Your task to perform on an android device: Empty the shopping cart on bestbuy. Add macbook pro to the cart on bestbuy, then select checkout. Image 0: 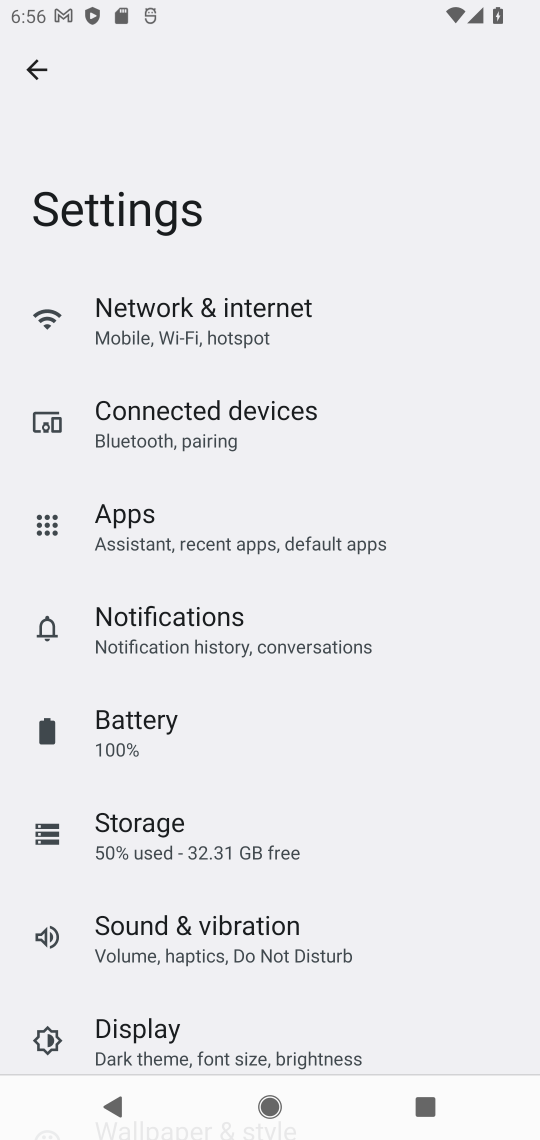
Step 0: press home button
Your task to perform on an android device: Empty the shopping cart on bestbuy. Add macbook pro to the cart on bestbuy, then select checkout. Image 1: 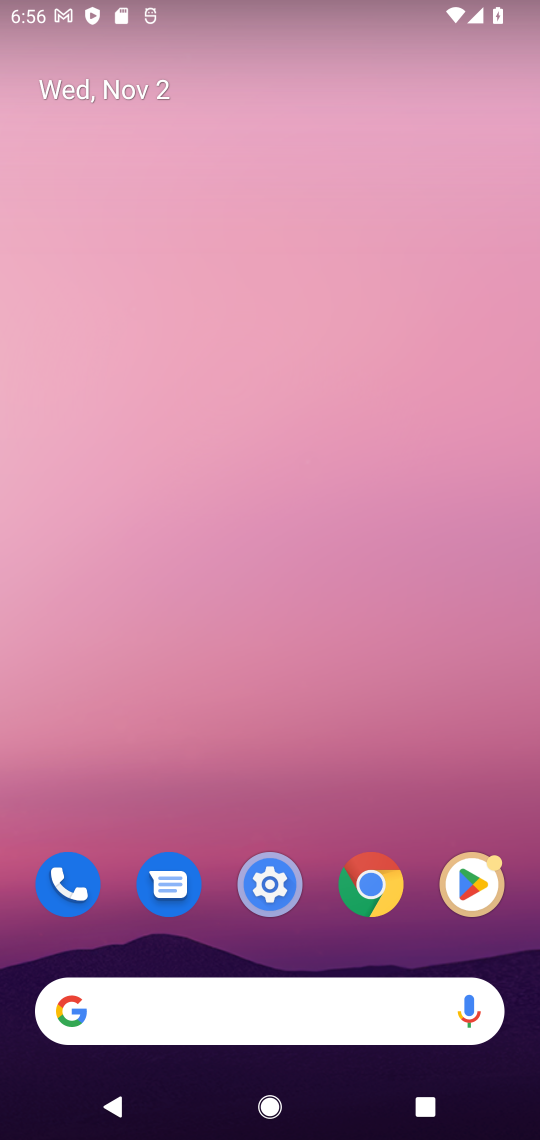
Step 1: click (318, 1007)
Your task to perform on an android device: Empty the shopping cart on bestbuy. Add macbook pro to the cart on bestbuy, then select checkout. Image 2: 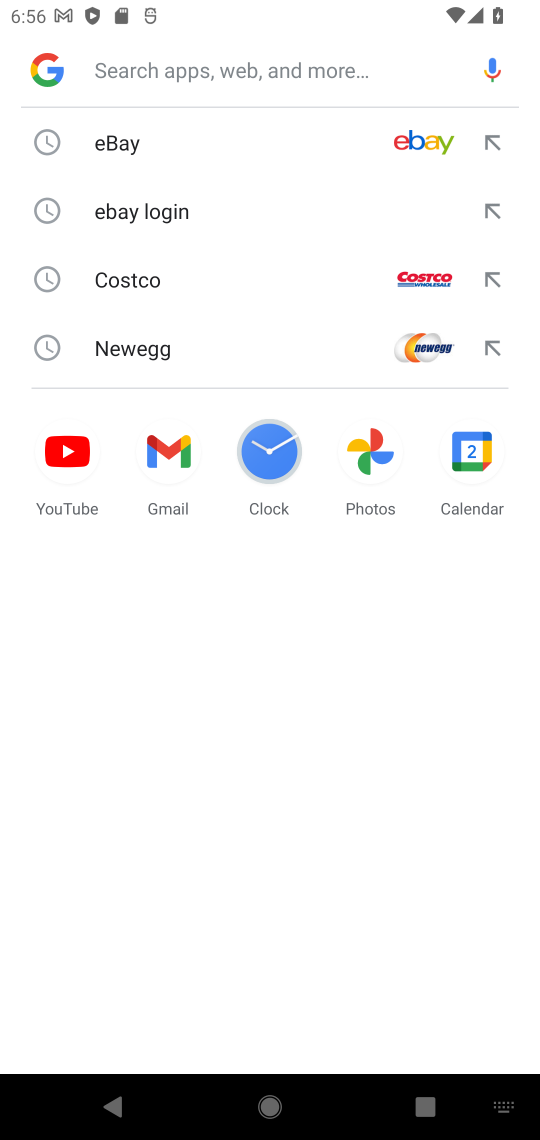
Step 2: type "bestbuy"
Your task to perform on an android device: Empty the shopping cart on bestbuy. Add macbook pro to the cart on bestbuy, then select checkout. Image 3: 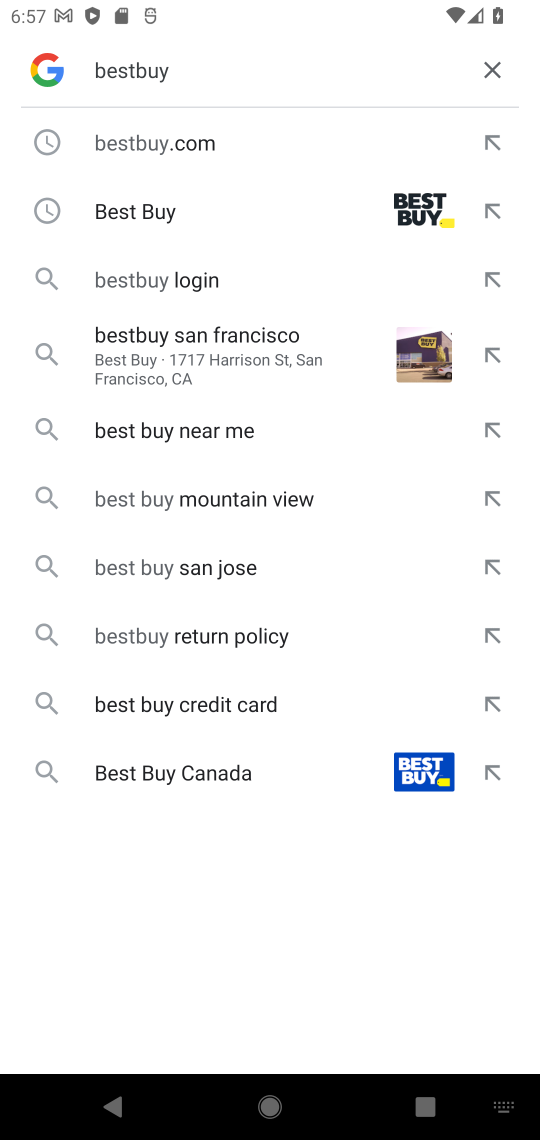
Step 3: click (412, 231)
Your task to perform on an android device: Empty the shopping cart on bestbuy. Add macbook pro to the cart on bestbuy, then select checkout. Image 4: 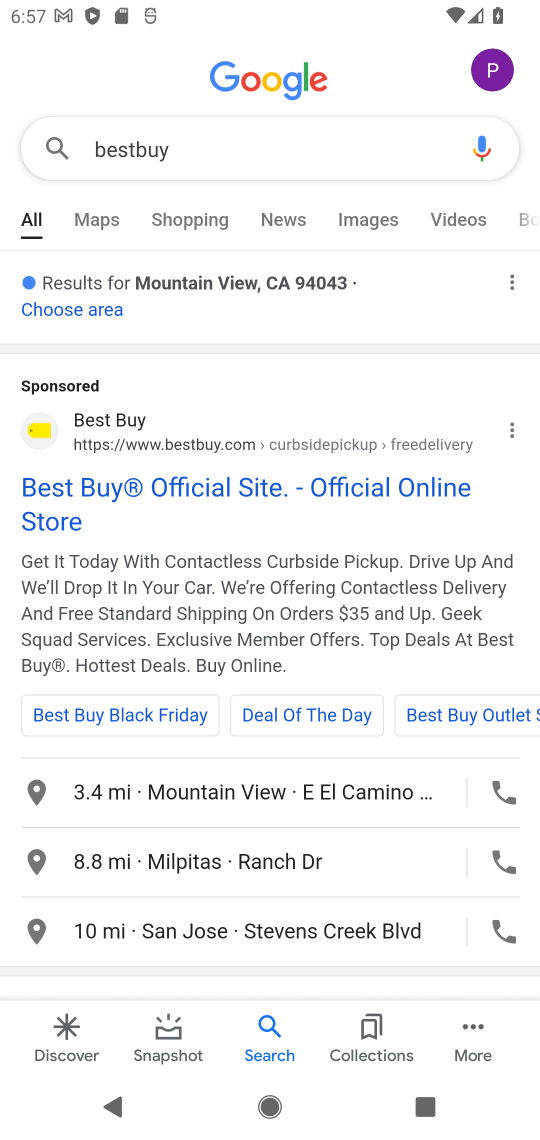
Step 4: click (245, 493)
Your task to perform on an android device: Empty the shopping cart on bestbuy. Add macbook pro to the cart on bestbuy, then select checkout. Image 5: 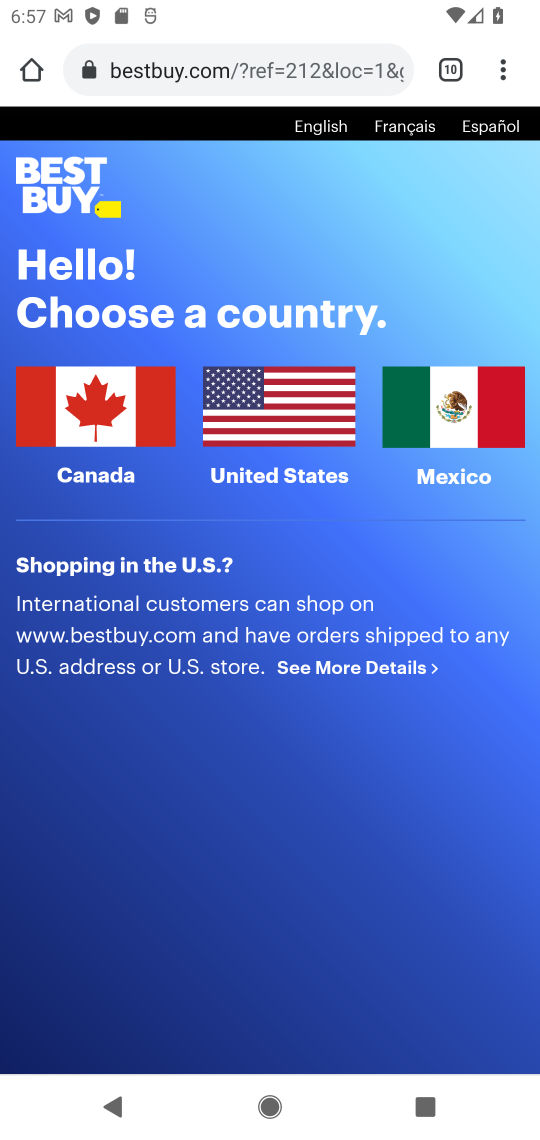
Step 5: click (264, 438)
Your task to perform on an android device: Empty the shopping cart on bestbuy. Add macbook pro to the cart on bestbuy, then select checkout. Image 6: 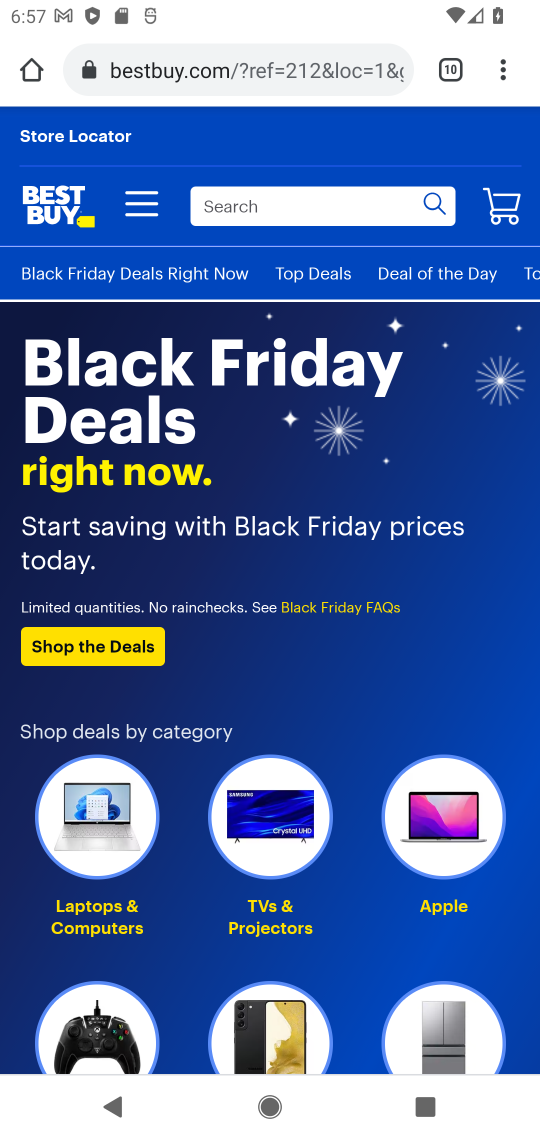
Step 6: click (287, 207)
Your task to perform on an android device: Empty the shopping cart on bestbuy. Add macbook pro to the cart on bestbuy, then select checkout. Image 7: 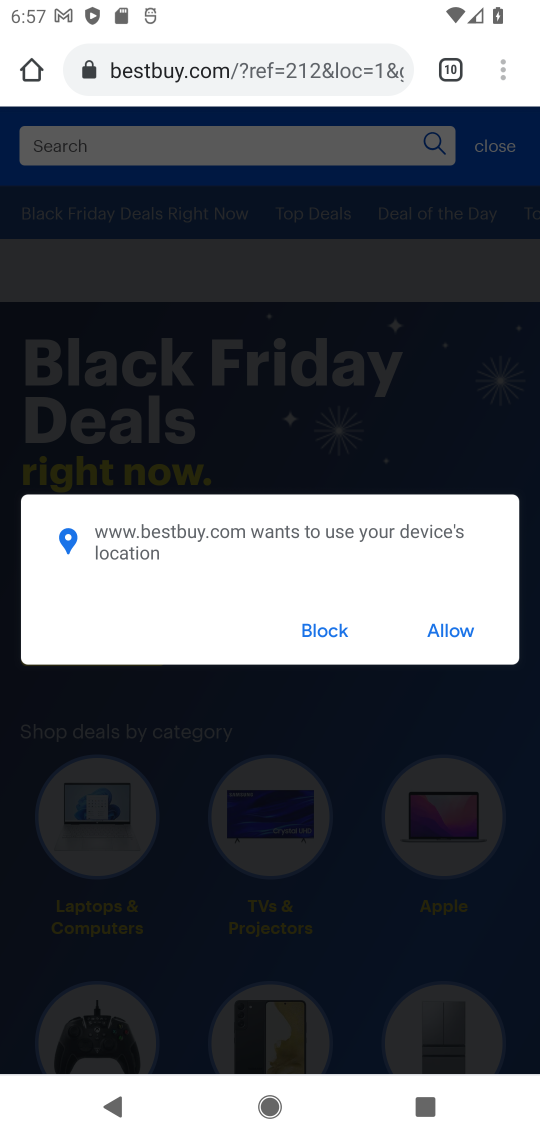
Step 7: click (358, 652)
Your task to perform on an android device: Empty the shopping cart on bestbuy. Add macbook pro to the cart on bestbuy, then select checkout. Image 8: 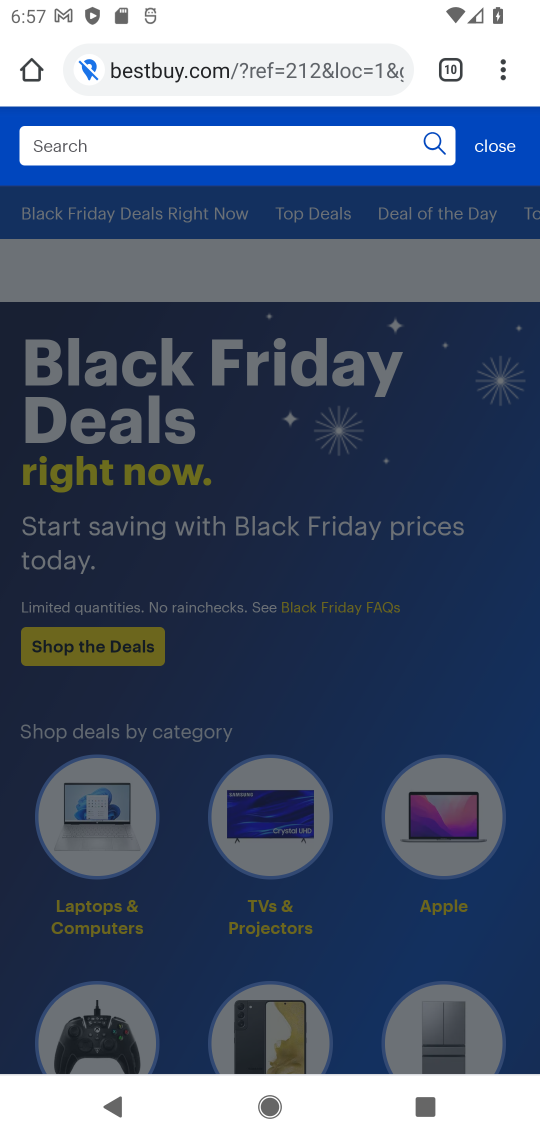
Step 8: click (246, 154)
Your task to perform on an android device: Empty the shopping cart on bestbuy. Add macbook pro to the cart on bestbuy, then select checkout. Image 9: 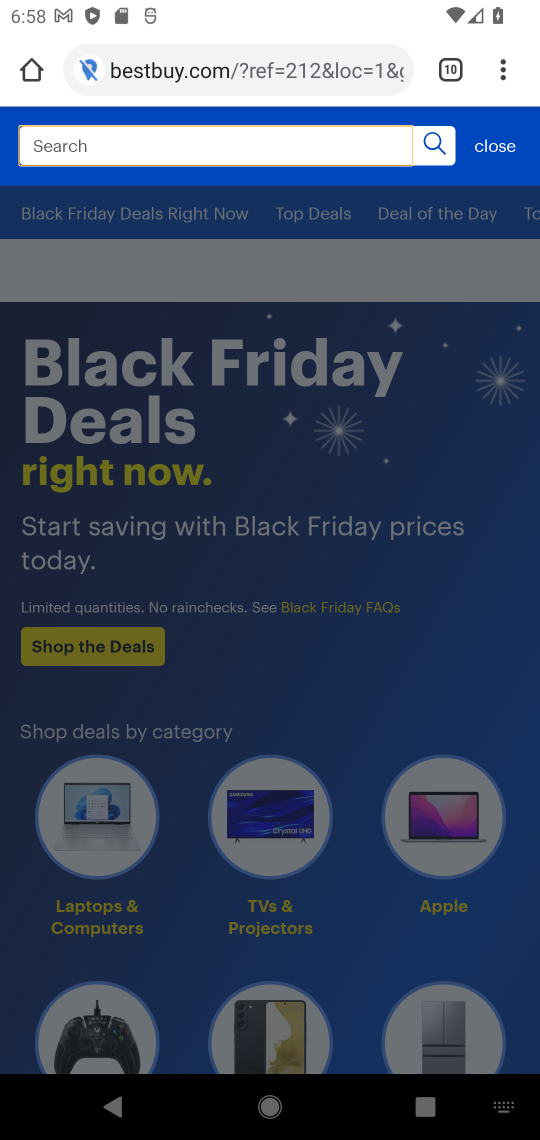
Step 9: type "macbook"
Your task to perform on an android device: Empty the shopping cart on bestbuy. Add macbook pro to the cart on bestbuy, then select checkout. Image 10: 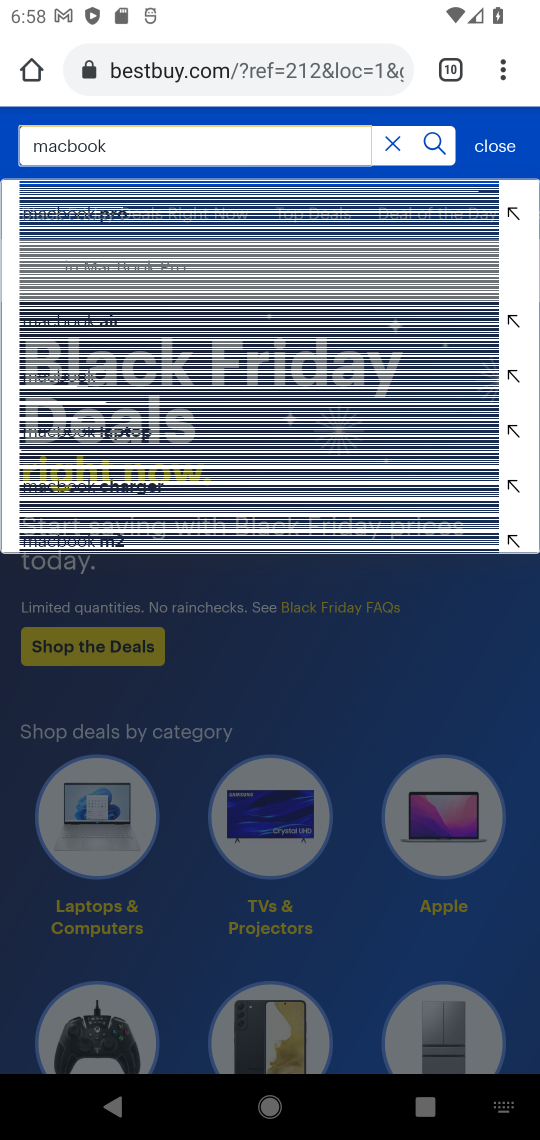
Step 10: click (194, 222)
Your task to perform on an android device: Empty the shopping cart on bestbuy. Add macbook pro to the cart on bestbuy, then select checkout. Image 11: 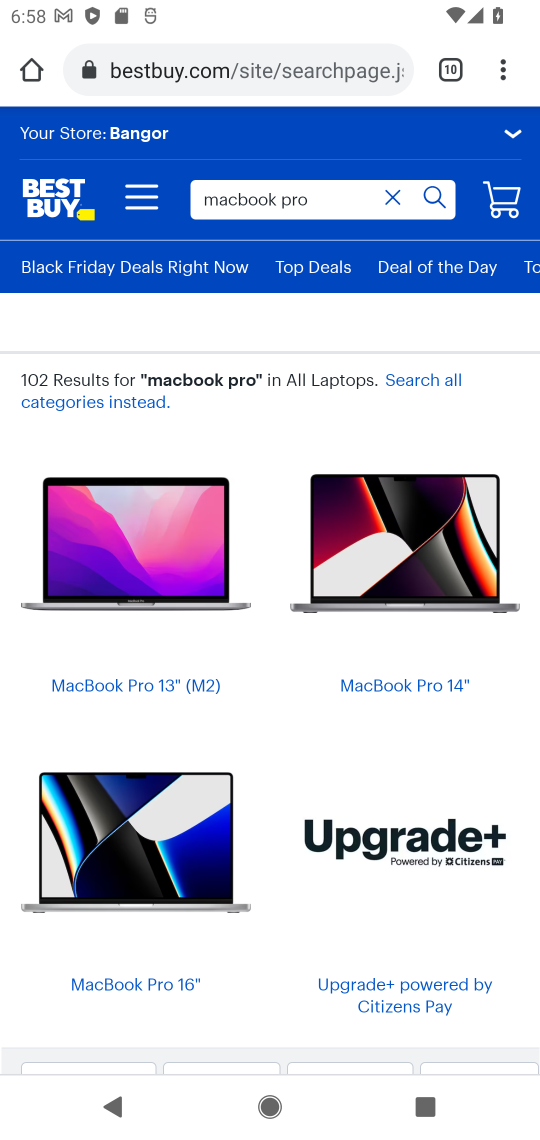
Step 11: click (155, 596)
Your task to perform on an android device: Empty the shopping cart on bestbuy. Add macbook pro to the cart on bestbuy, then select checkout. Image 12: 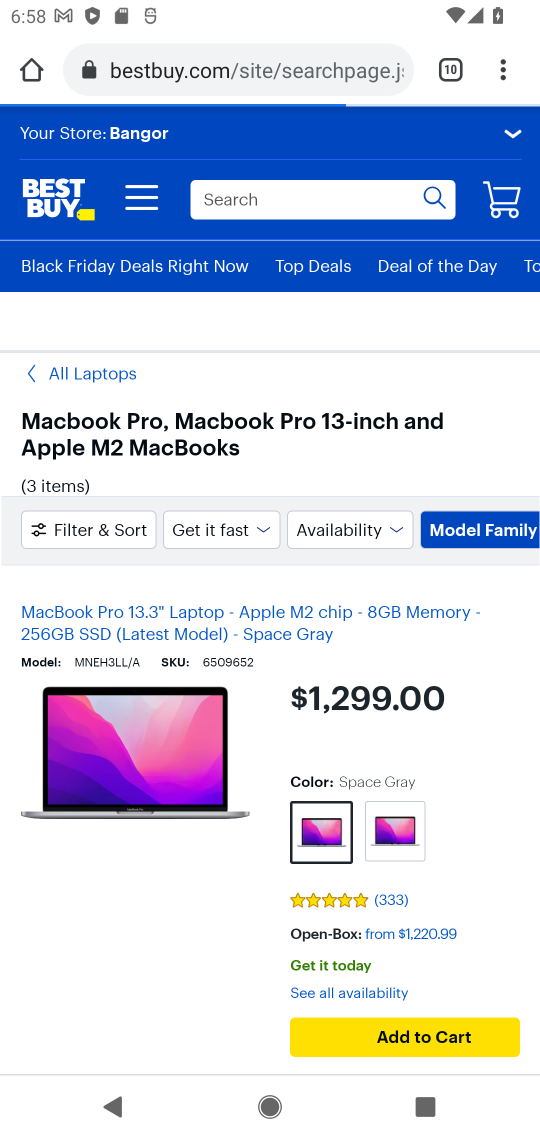
Step 12: click (379, 994)
Your task to perform on an android device: Empty the shopping cart on bestbuy. Add macbook pro to the cart on bestbuy, then select checkout. Image 13: 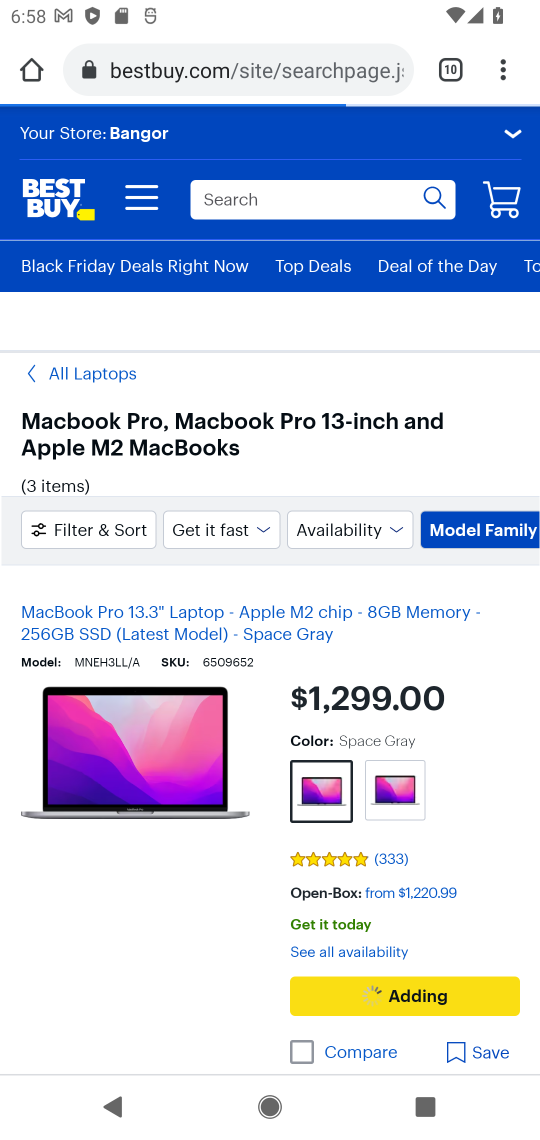
Step 13: task complete